Your task to perform on an android device: Go to sound settings Image 0: 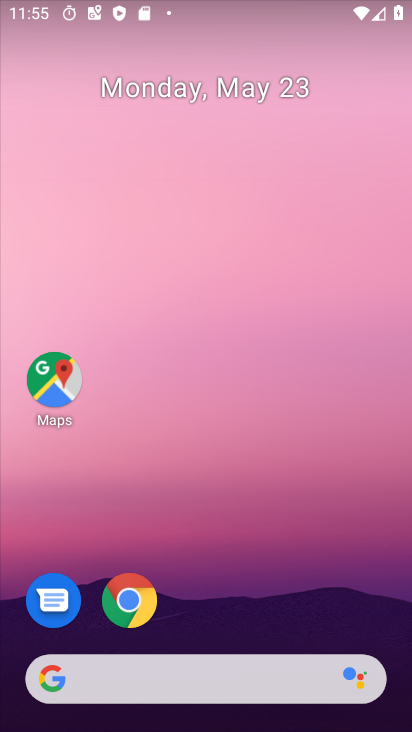
Step 0: drag from (214, 607) to (247, 81)
Your task to perform on an android device: Go to sound settings Image 1: 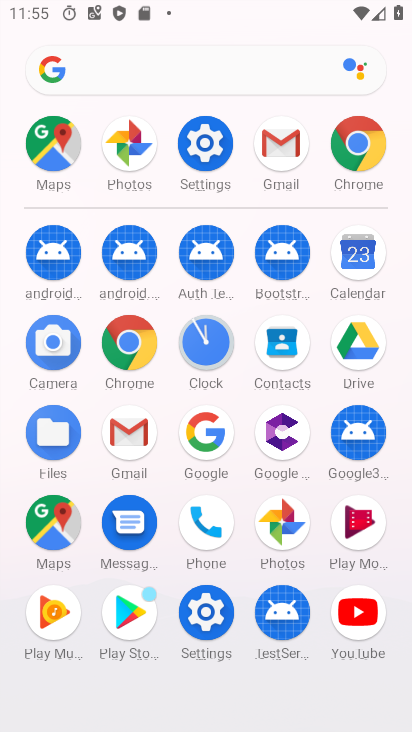
Step 1: click (188, 156)
Your task to perform on an android device: Go to sound settings Image 2: 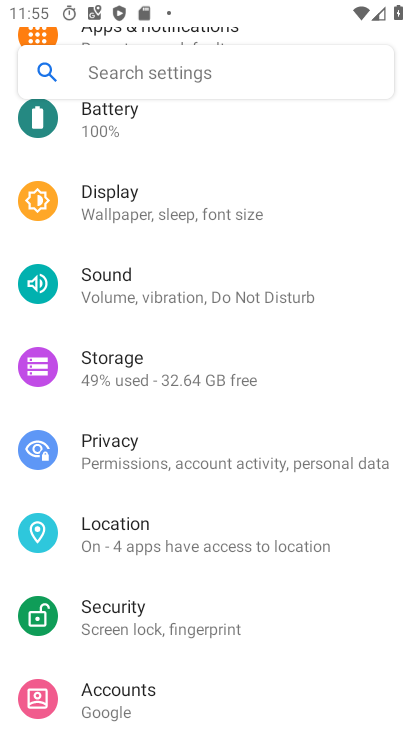
Step 2: click (201, 179)
Your task to perform on an android device: Go to sound settings Image 3: 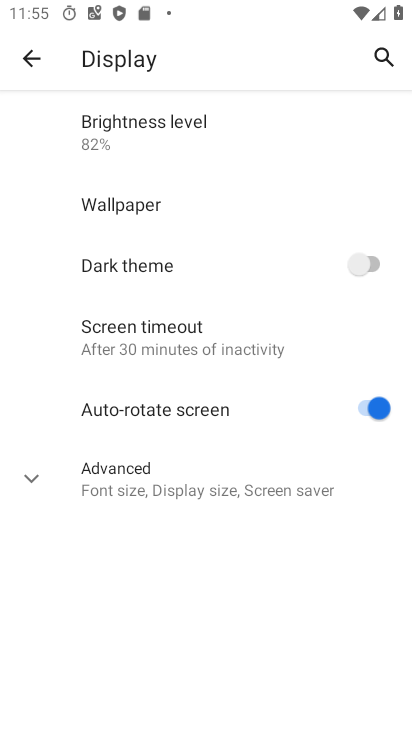
Step 3: click (41, 55)
Your task to perform on an android device: Go to sound settings Image 4: 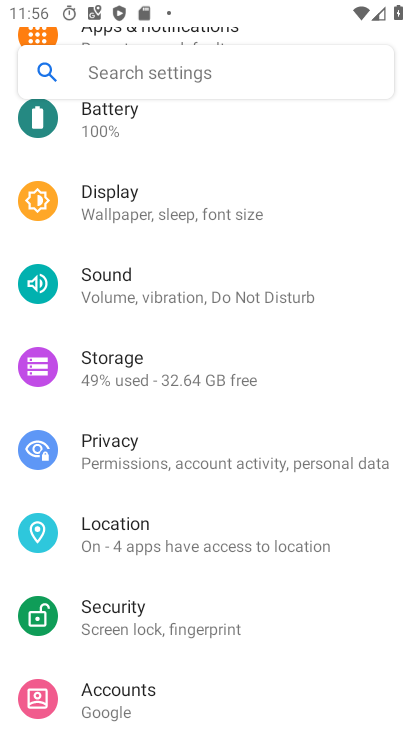
Step 4: click (137, 293)
Your task to perform on an android device: Go to sound settings Image 5: 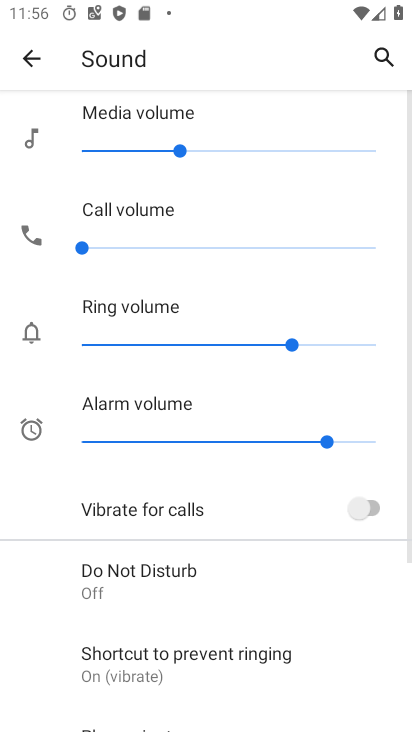
Step 5: task complete